Your task to perform on an android device: Open Maps and search for coffee Image 0: 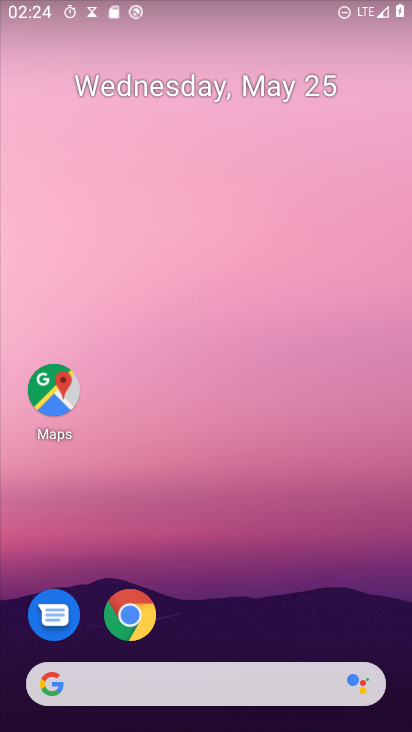
Step 0: press back button
Your task to perform on an android device: Open Maps and search for coffee Image 1: 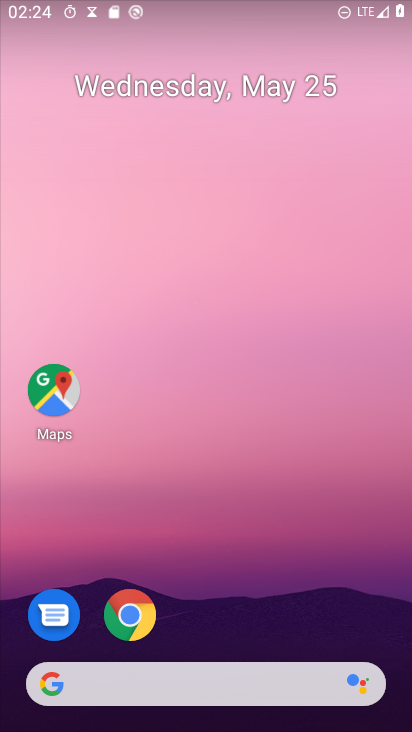
Step 1: drag from (235, 697) to (270, 192)
Your task to perform on an android device: Open Maps and search for coffee Image 2: 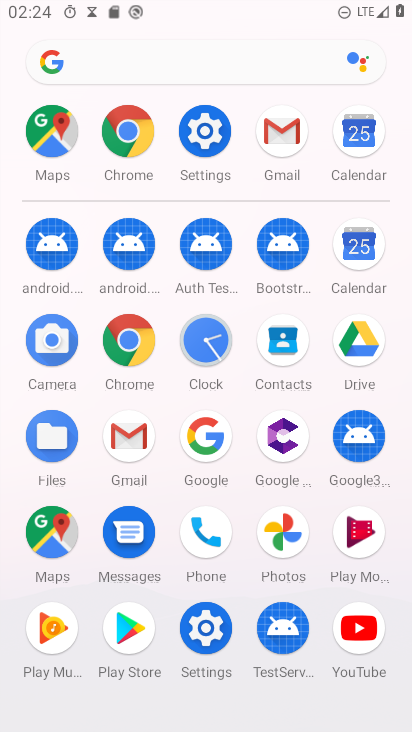
Step 2: click (54, 515)
Your task to perform on an android device: Open Maps and search for coffee Image 3: 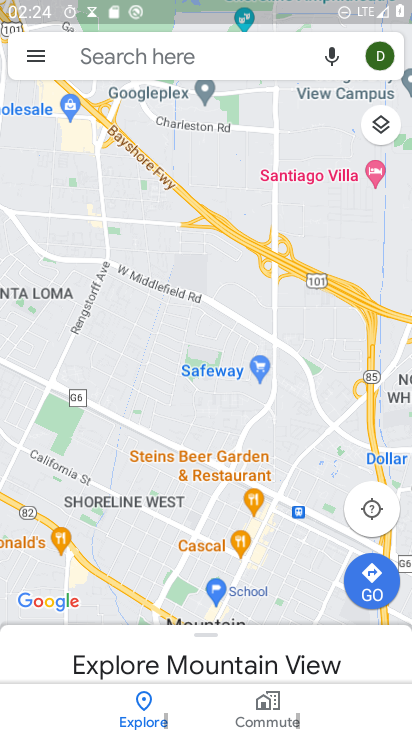
Step 3: click (119, 63)
Your task to perform on an android device: Open Maps and search for coffee Image 4: 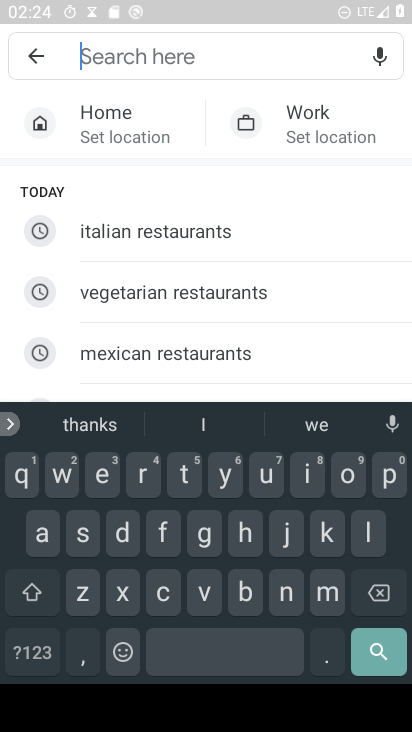
Step 4: click (168, 593)
Your task to perform on an android device: Open Maps and search for coffee Image 5: 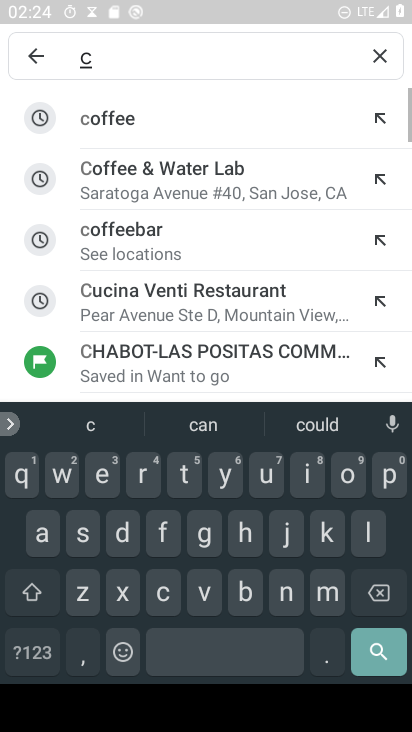
Step 5: click (156, 124)
Your task to perform on an android device: Open Maps and search for coffee Image 6: 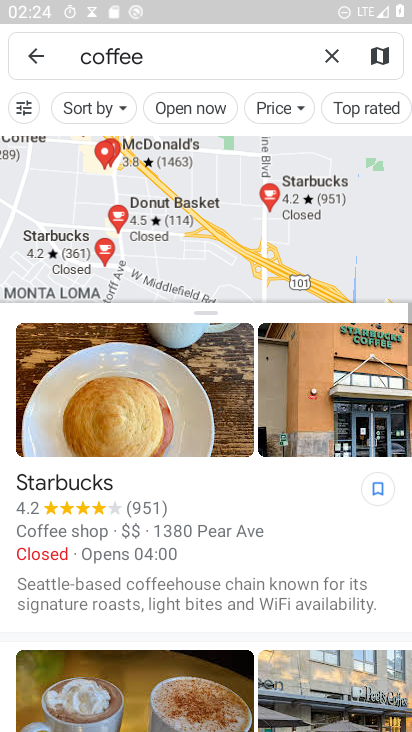
Step 6: task complete